Your task to perform on an android device: turn on sleep mode Image 0: 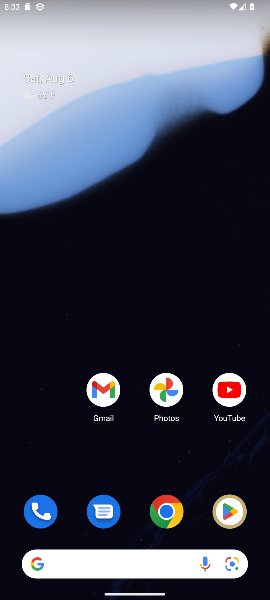
Step 0: drag from (137, 508) to (123, 405)
Your task to perform on an android device: turn on sleep mode Image 1: 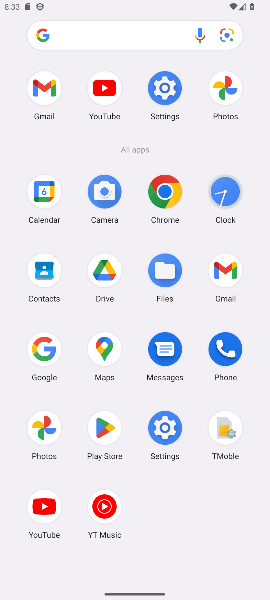
Step 1: click (156, 429)
Your task to perform on an android device: turn on sleep mode Image 2: 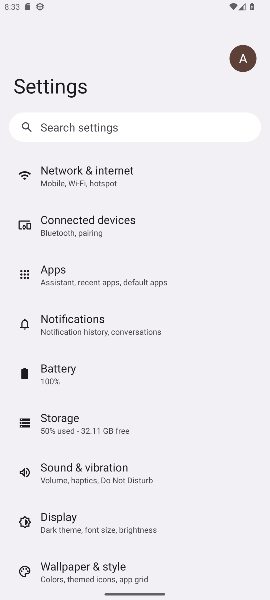
Step 2: click (83, 521)
Your task to perform on an android device: turn on sleep mode Image 3: 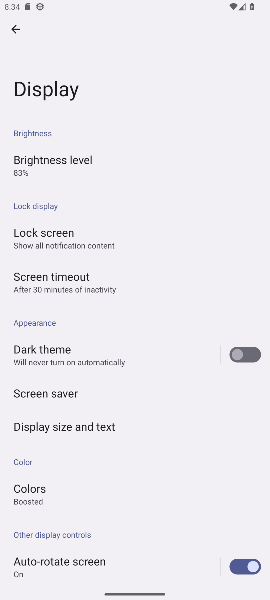
Step 3: click (79, 477)
Your task to perform on an android device: turn on sleep mode Image 4: 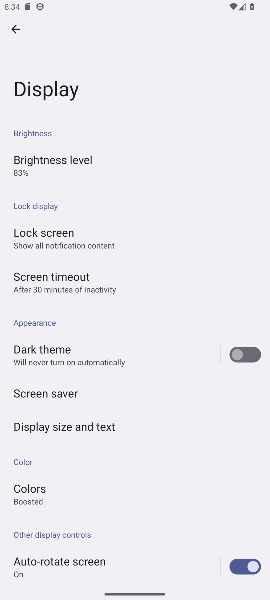
Step 4: task complete